Your task to perform on an android device: turn off location history Image 0: 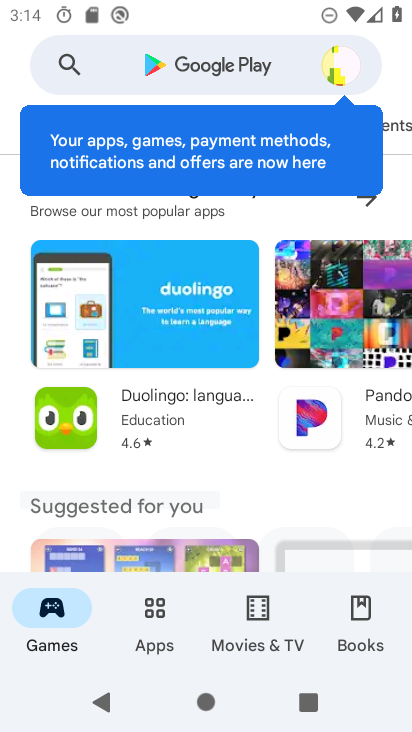
Step 0: press back button
Your task to perform on an android device: turn off location history Image 1: 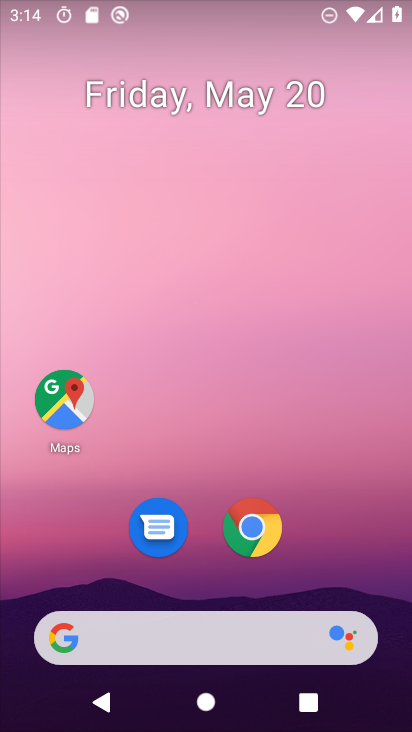
Step 1: drag from (166, 529) to (256, 43)
Your task to perform on an android device: turn off location history Image 2: 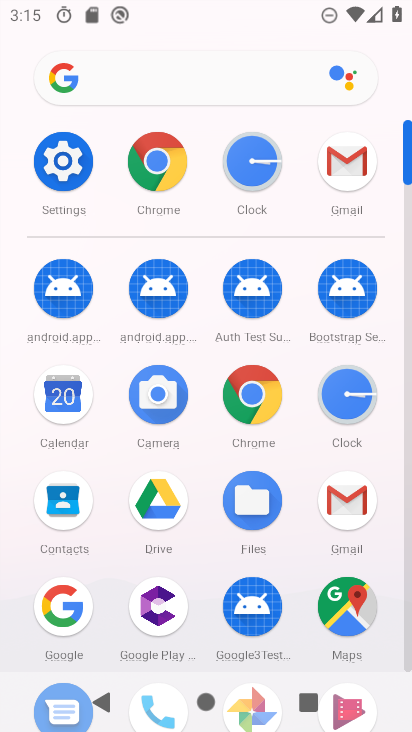
Step 2: click (71, 163)
Your task to perform on an android device: turn off location history Image 3: 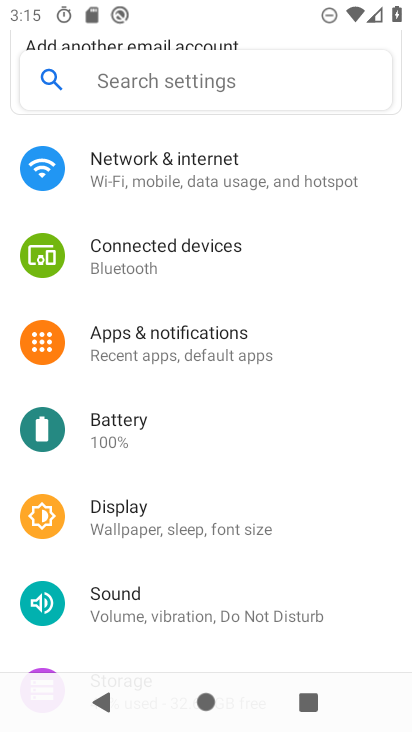
Step 3: drag from (145, 617) to (233, 85)
Your task to perform on an android device: turn off location history Image 4: 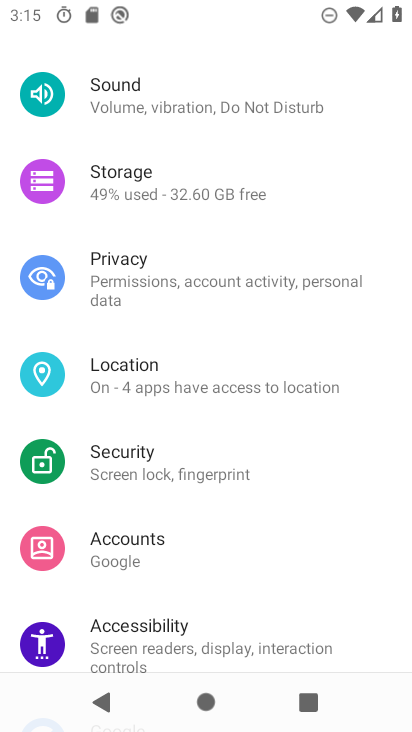
Step 4: click (182, 367)
Your task to perform on an android device: turn off location history Image 5: 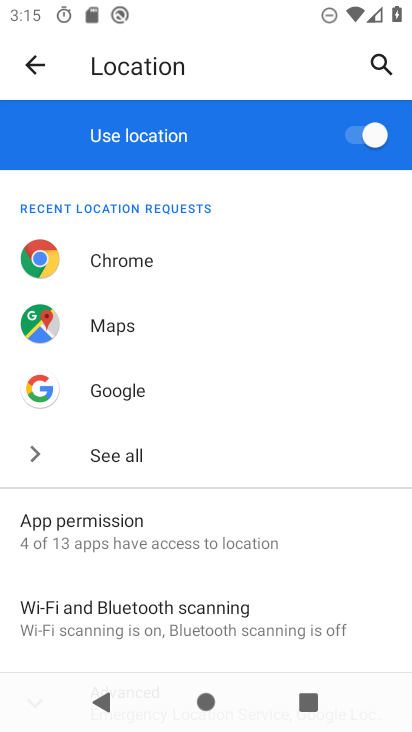
Step 5: drag from (161, 619) to (227, 73)
Your task to perform on an android device: turn off location history Image 6: 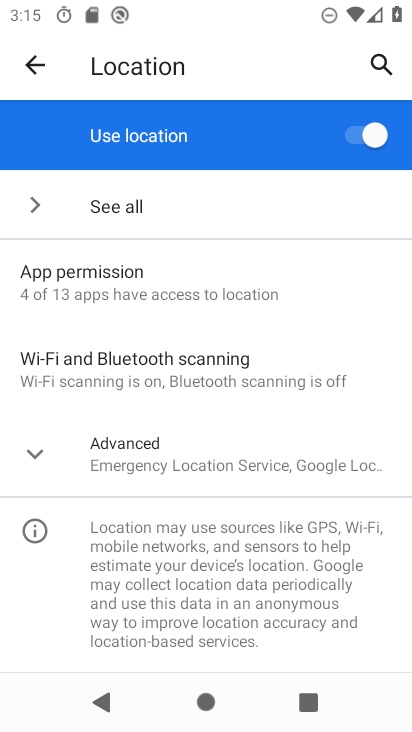
Step 6: click (162, 459)
Your task to perform on an android device: turn off location history Image 7: 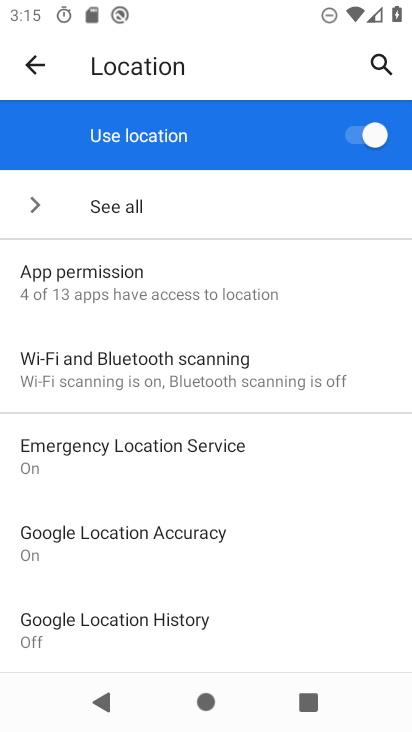
Step 7: click (144, 622)
Your task to perform on an android device: turn off location history Image 8: 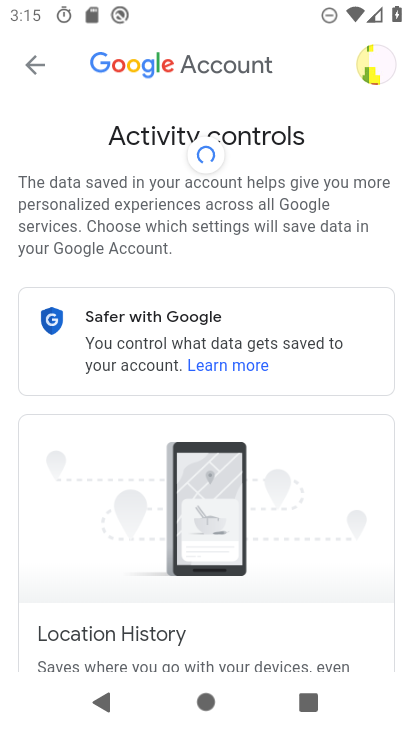
Step 8: task complete